Your task to perform on an android device: Toggle the flashlight Image 0: 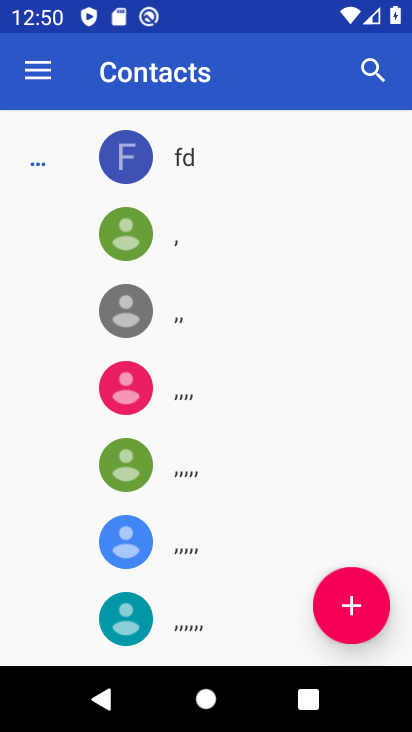
Step 0: press home button
Your task to perform on an android device: Toggle the flashlight Image 1: 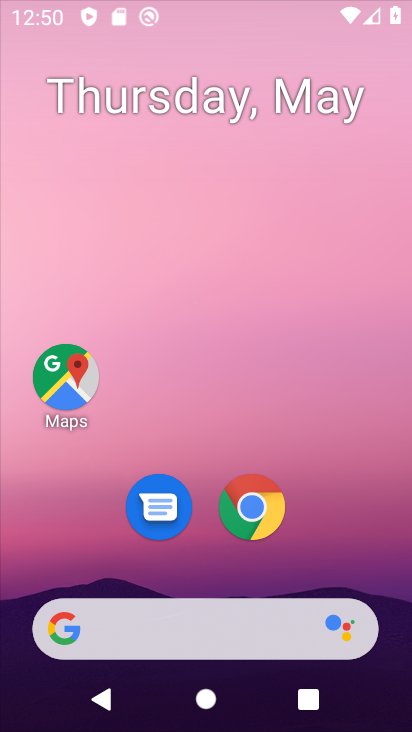
Step 1: task complete